Your task to perform on an android device: Set the phone to "Do not disturb". Image 0: 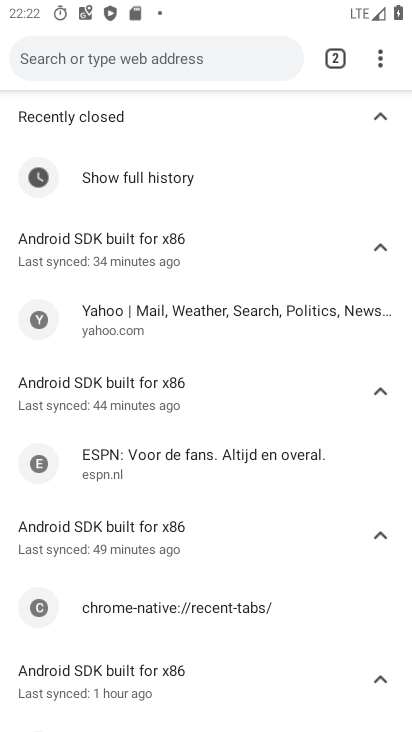
Step 0: press home button
Your task to perform on an android device: Set the phone to "Do not disturb". Image 1: 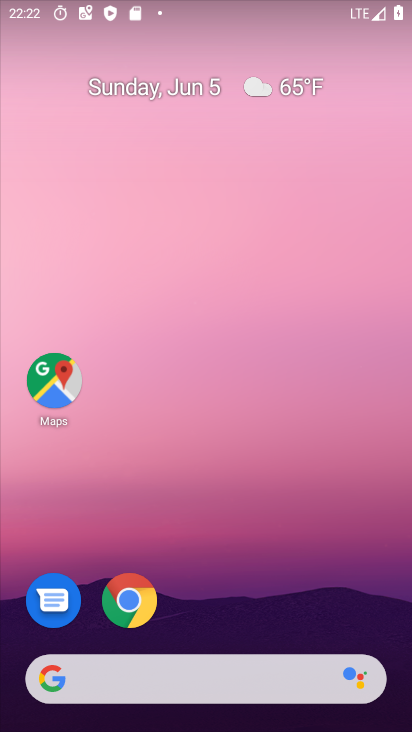
Step 1: drag from (240, 6) to (261, 477)
Your task to perform on an android device: Set the phone to "Do not disturb". Image 2: 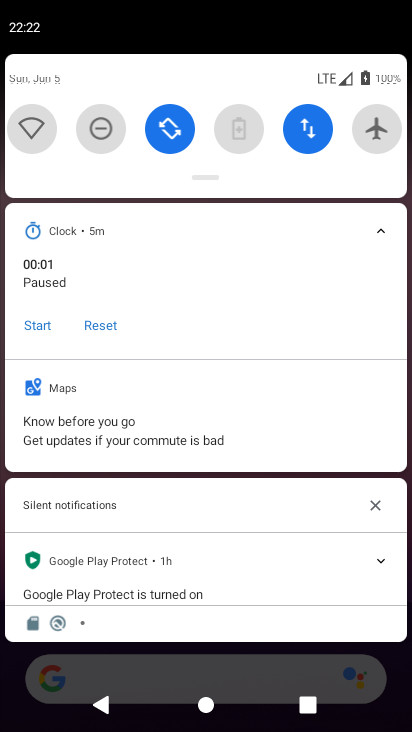
Step 2: click (105, 135)
Your task to perform on an android device: Set the phone to "Do not disturb". Image 3: 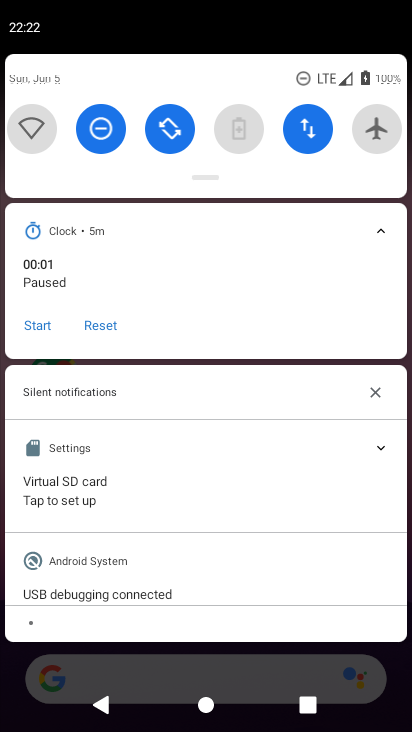
Step 3: task complete